Your task to perform on an android device: Open internet settings Image 0: 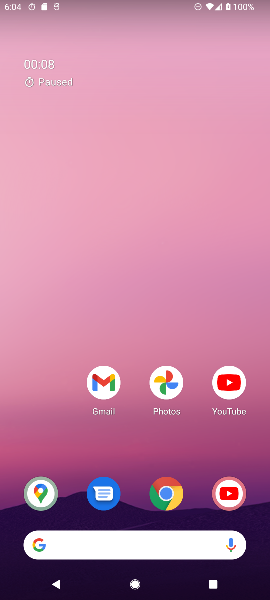
Step 0: drag from (145, 553) to (134, 374)
Your task to perform on an android device: Open internet settings Image 1: 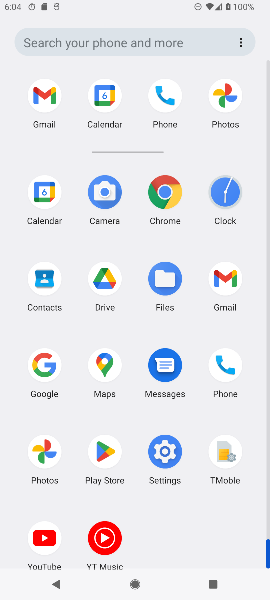
Step 1: click (166, 455)
Your task to perform on an android device: Open internet settings Image 2: 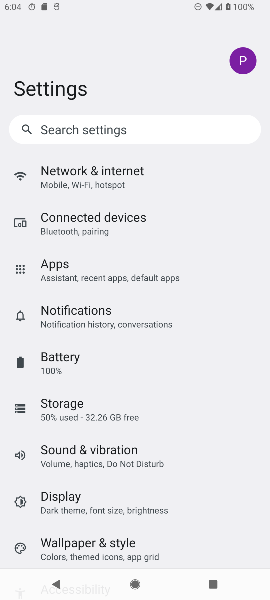
Step 2: click (165, 449)
Your task to perform on an android device: Open internet settings Image 3: 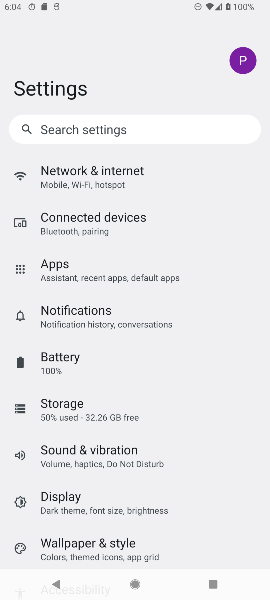
Step 3: click (67, 181)
Your task to perform on an android device: Open internet settings Image 4: 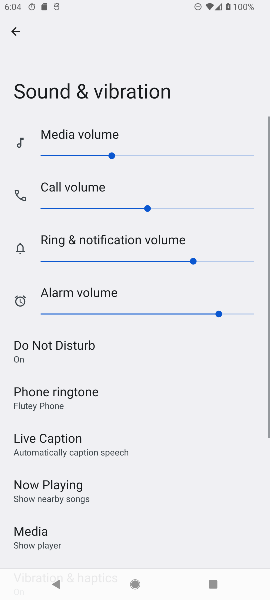
Step 4: click (67, 181)
Your task to perform on an android device: Open internet settings Image 5: 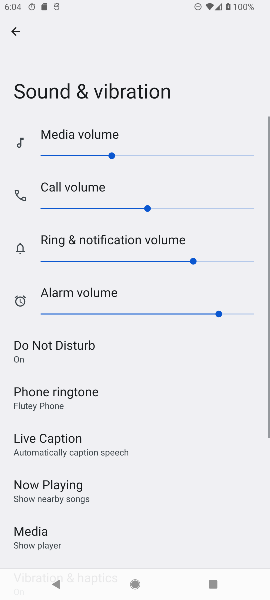
Step 5: click (67, 181)
Your task to perform on an android device: Open internet settings Image 6: 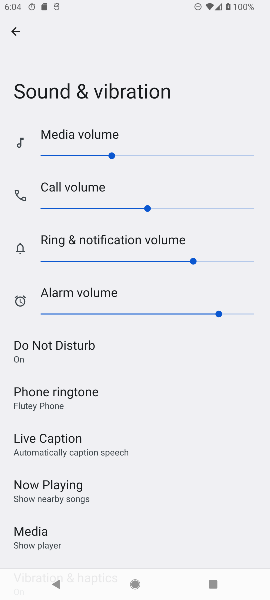
Step 6: click (8, 33)
Your task to perform on an android device: Open internet settings Image 7: 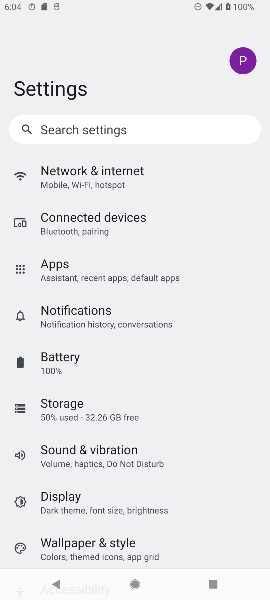
Step 7: click (72, 176)
Your task to perform on an android device: Open internet settings Image 8: 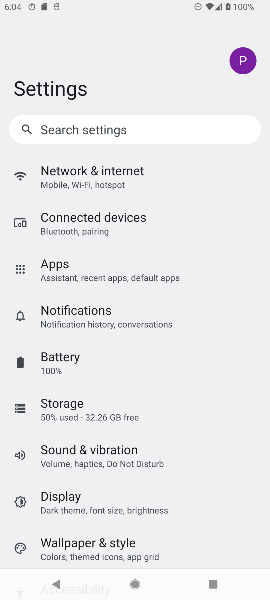
Step 8: click (74, 175)
Your task to perform on an android device: Open internet settings Image 9: 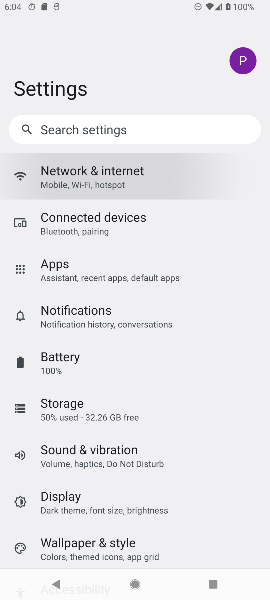
Step 9: click (75, 175)
Your task to perform on an android device: Open internet settings Image 10: 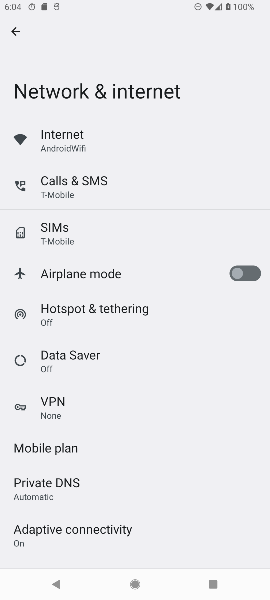
Step 10: click (57, 140)
Your task to perform on an android device: Open internet settings Image 11: 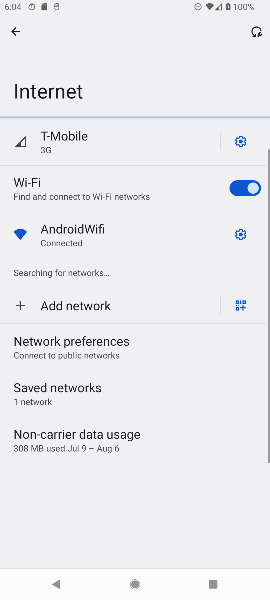
Step 11: task complete